Your task to perform on an android device: Open Wikipedia Image 0: 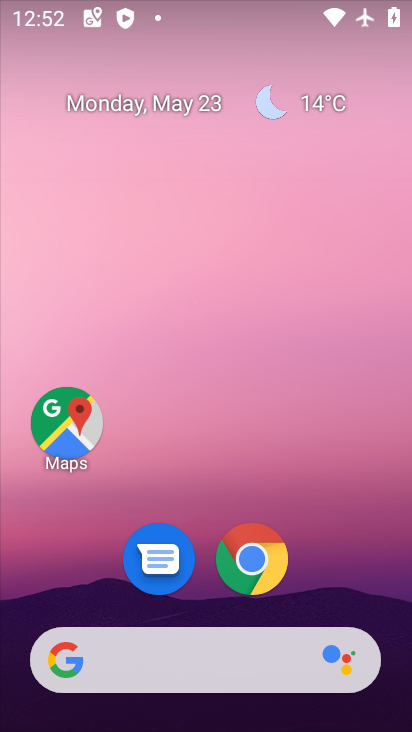
Step 0: click (249, 568)
Your task to perform on an android device: Open Wikipedia Image 1: 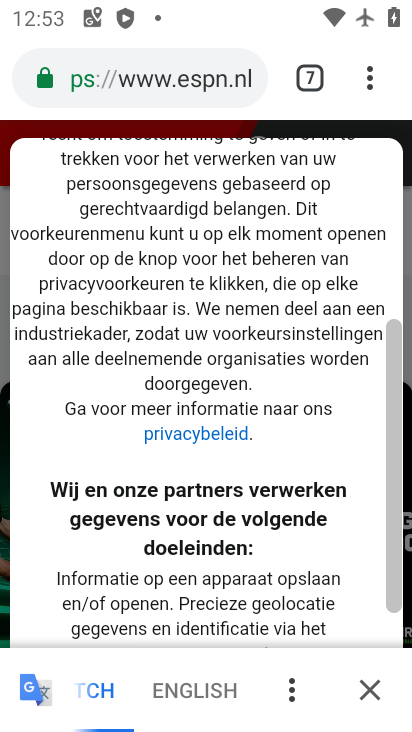
Step 1: click (128, 77)
Your task to perform on an android device: Open Wikipedia Image 2: 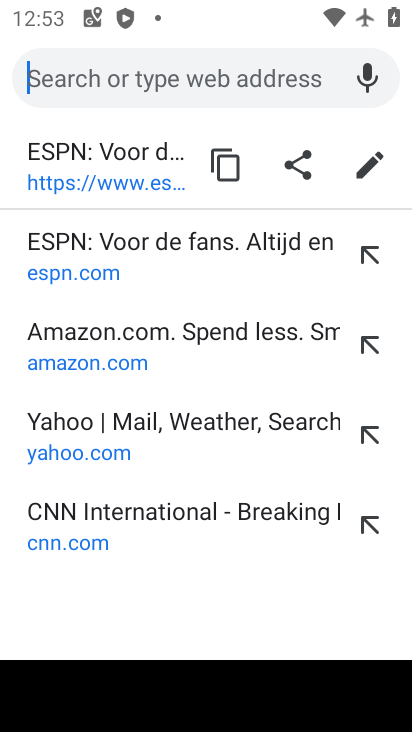
Step 2: type "wikipedia"
Your task to perform on an android device: Open Wikipedia Image 3: 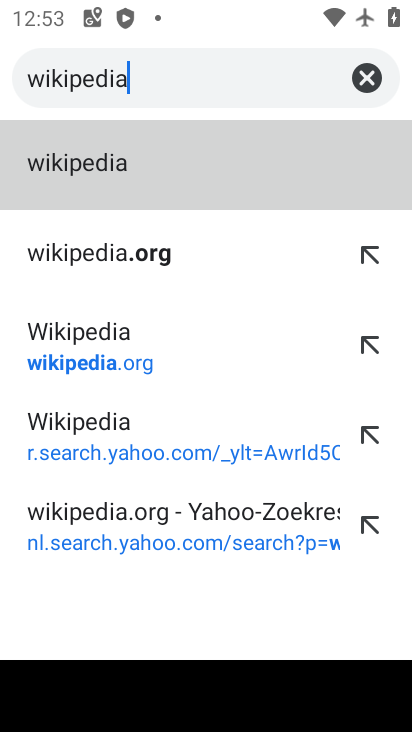
Step 3: click (119, 166)
Your task to perform on an android device: Open Wikipedia Image 4: 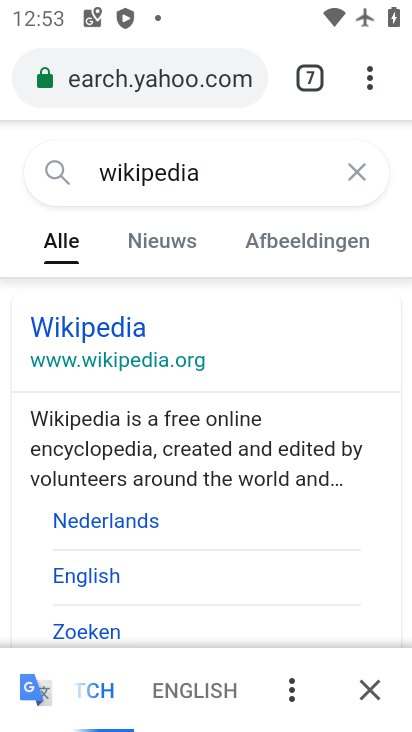
Step 4: click (130, 356)
Your task to perform on an android device: Open Wikipedia Image 5: 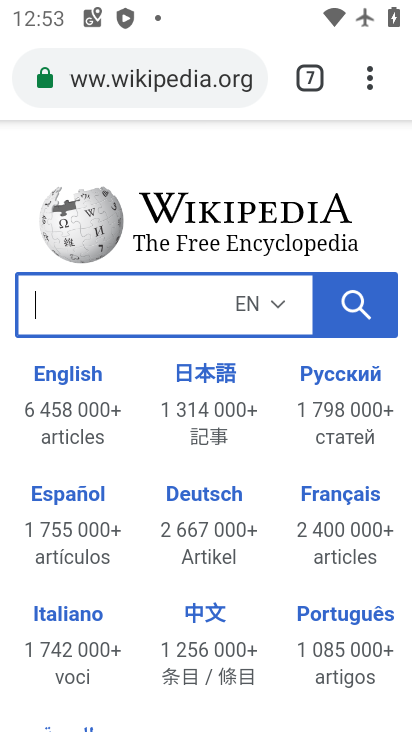
Step 5: task complete